Your task to perform on an android device: turn on airplane mode Image 0: 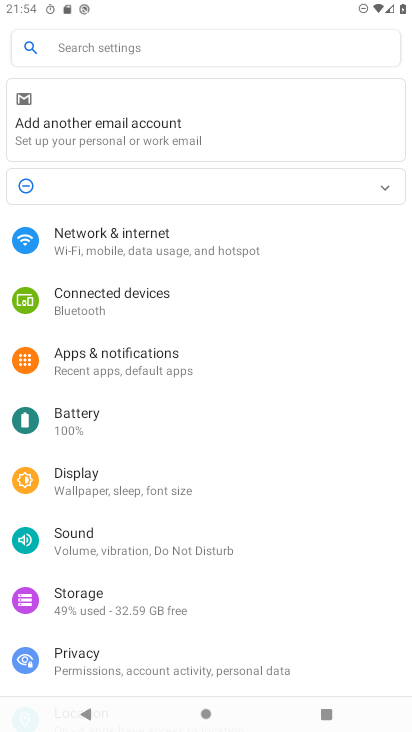
Step 0: click (134, 241)
Your task to perform on an android device: turn on airplane mode Image 1: 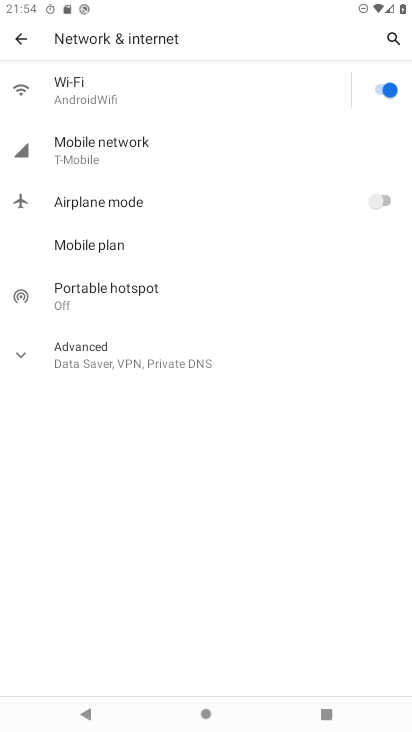
Step 1: click (382, 201)
Your task to perform on an android device: turn on airplane mode Image 2: 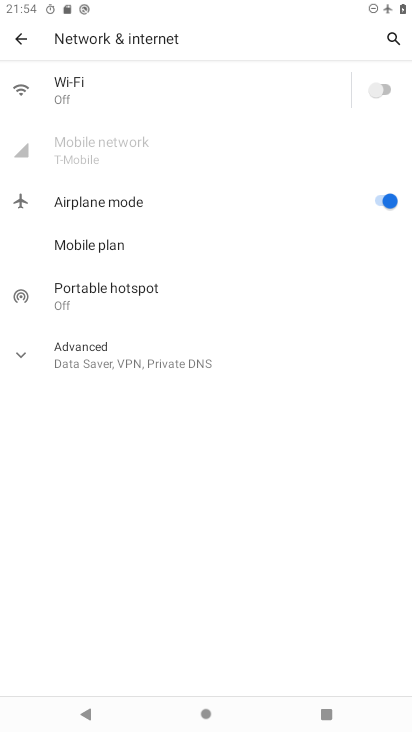
Step 2: task complete